Your task to perform on an android device: toggle sleep mode Image 0: 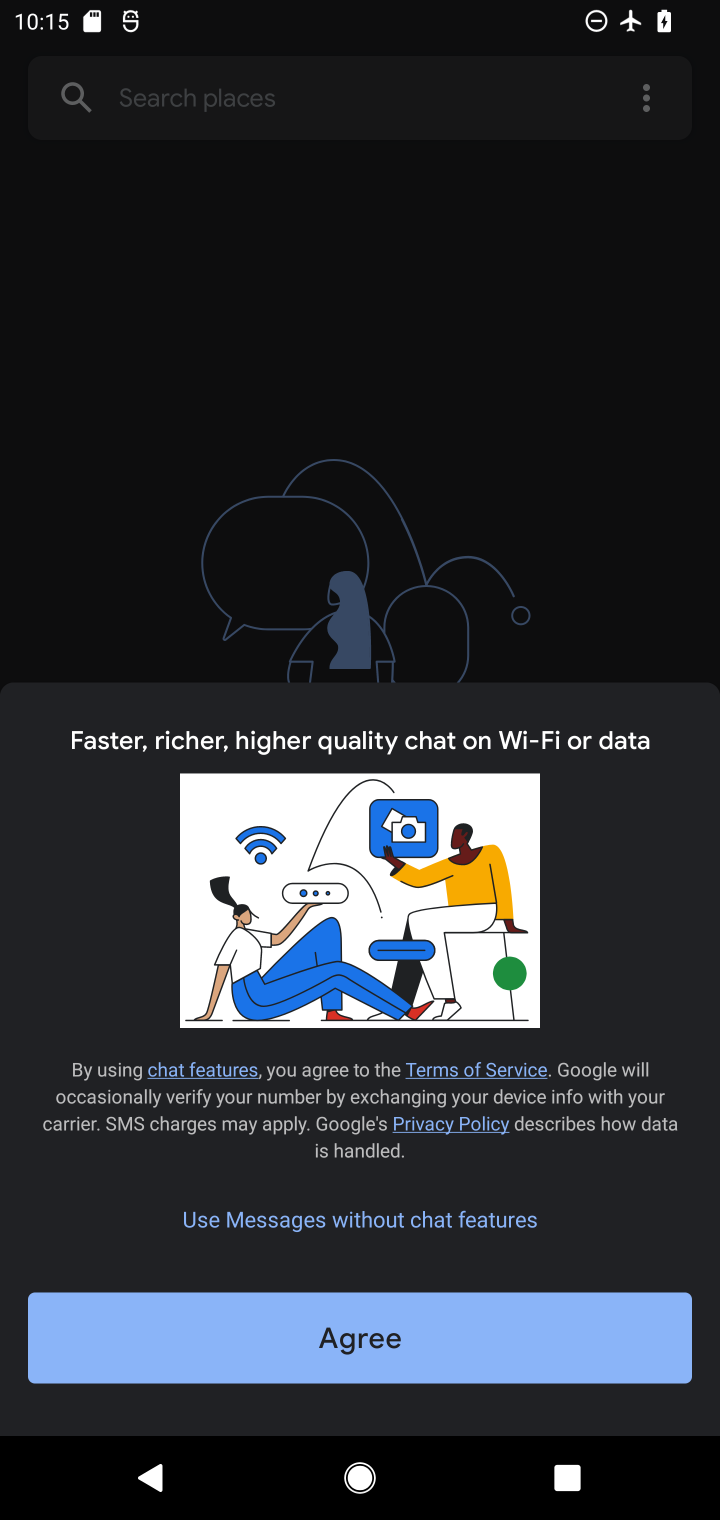
Step 0: task complete